Your task to perform on an android device: toggle javascript in the chrome app Image 0: 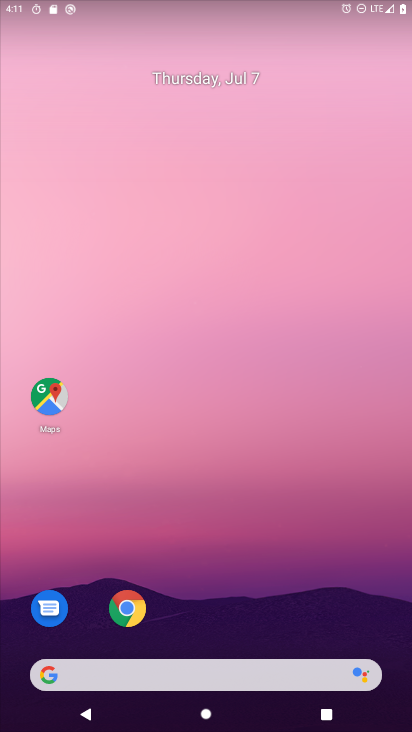
Step 0: click (126, 608)
Your task to perform on an android device: toggle javascript in the chrome app Image 1: 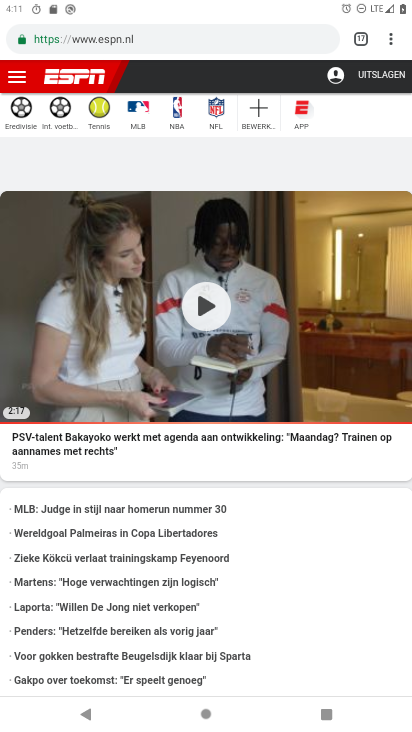
Step 1: click (389, 43)
Your task to perform on an android device: toggle javascript in the chrome app Image 2: 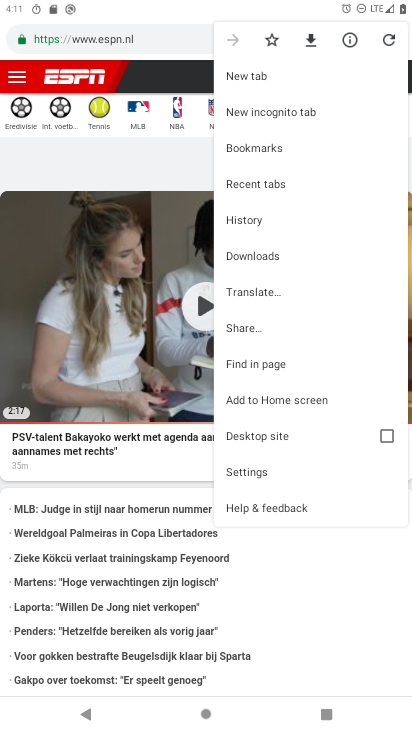
Step 2: click (251, 470)
Your task to perform on an android device: toggle javascript in the chrome app Image 3: 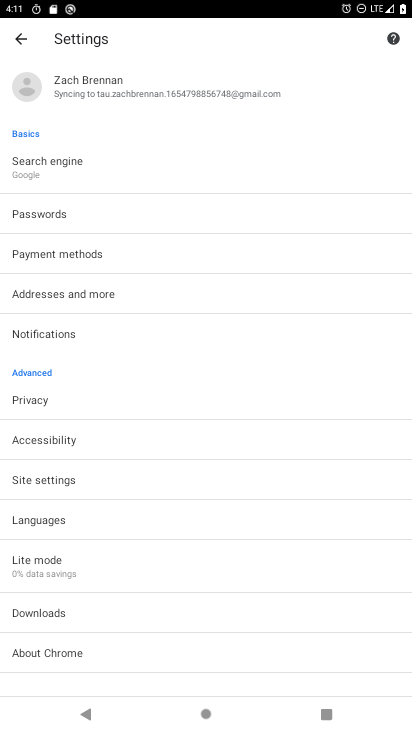
Step 3: click (53, 472)
Your task to perform on an android device: toggle javascript in the chrome app Image 4: 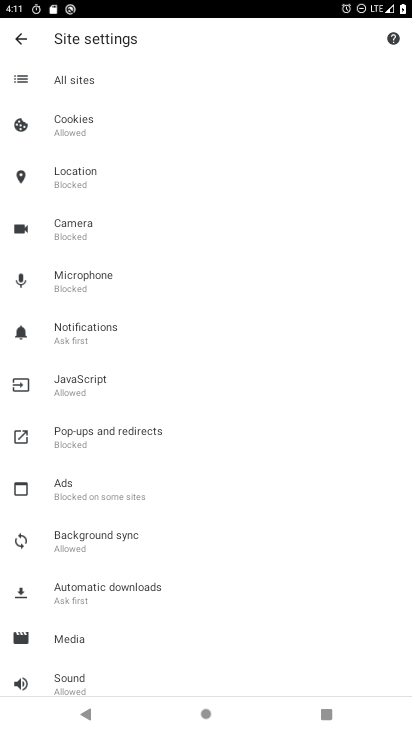
Step 4: click (72, 384)
Your task to perform on an android device: toggle javascript in the chrome app Image 5: 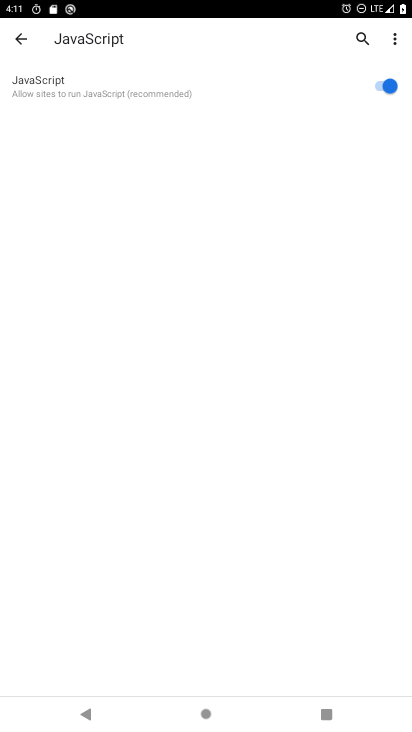
Step 5: click (381, 80)
Your task to perform on an android device: toggle javascript in the chrome app Image 6: 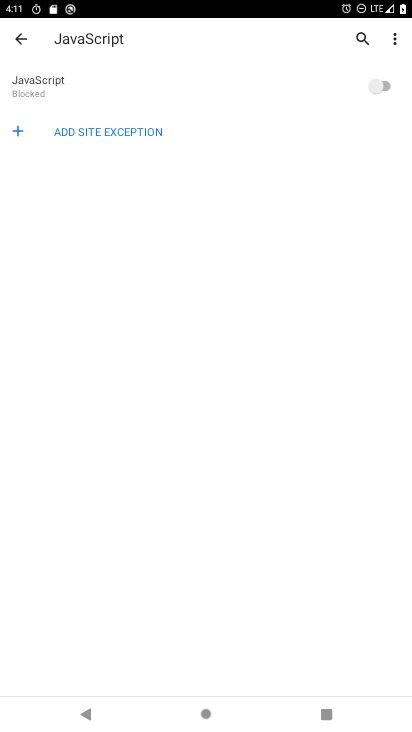
Step 6: task complete